Your task to perform on an android device: Open display settings Image 0: 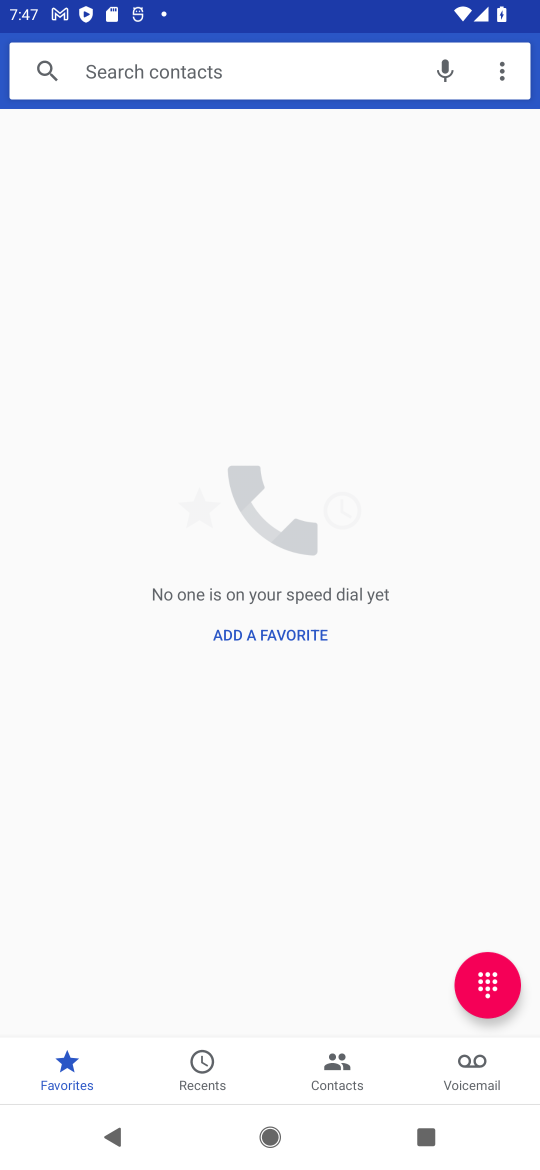
Step 0: press home button
Your task to perform on an android device: Open display settings Image 1: 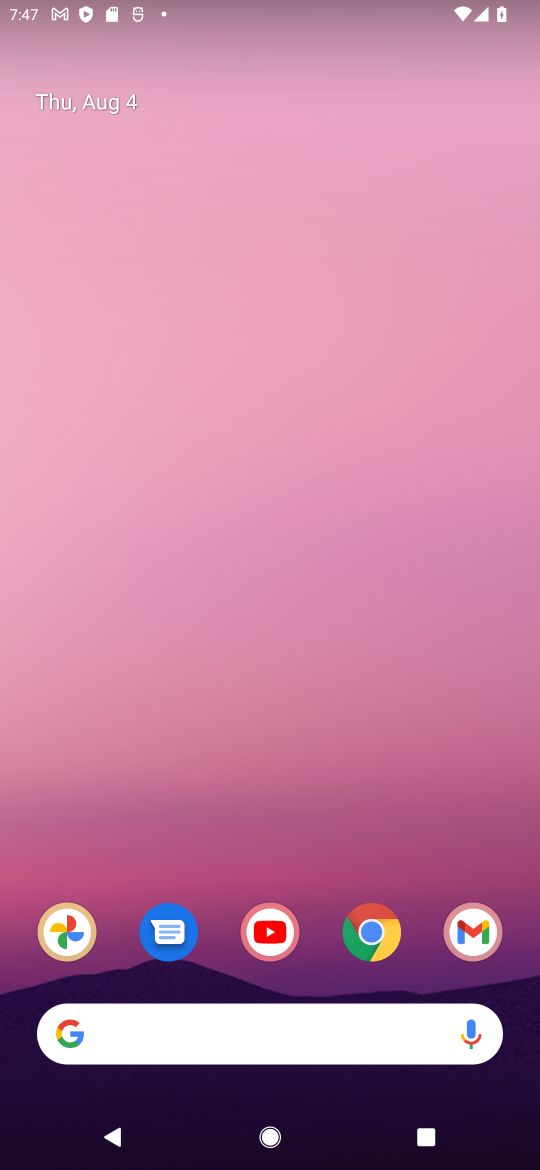
Step 1: drag from (227, 878) to (140, 192)
Your task to perform on an android device: Open display settings Image 2: 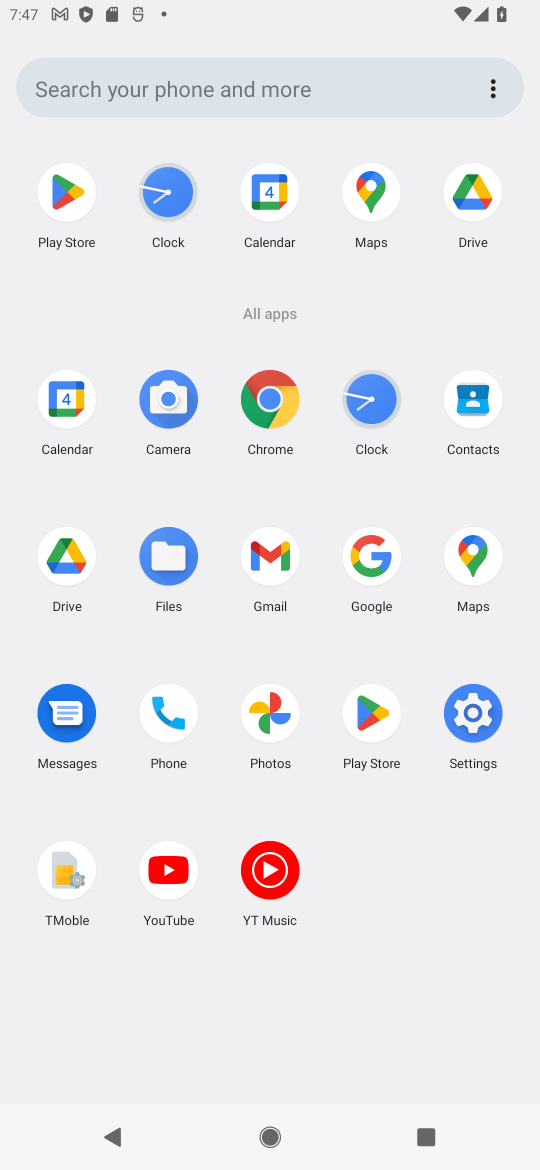
Step 2: click (471, 729)
Your task to perform on an android device: Open display settings Image 3: 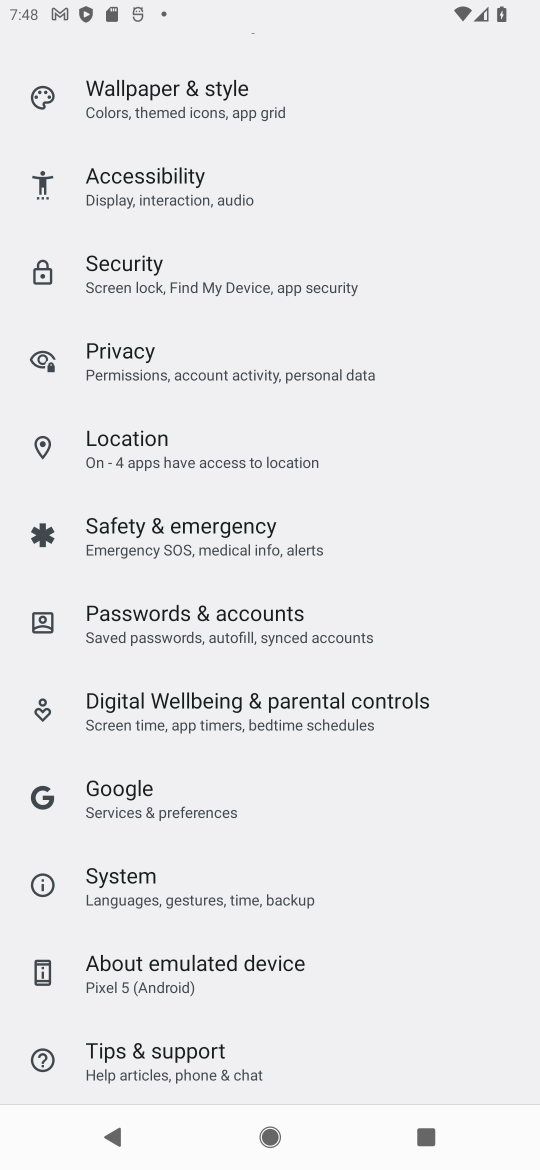
Step 3: drag from (183, 276) to (252, 1137)
Your task to perform on an android device: Open display settings Image 4: 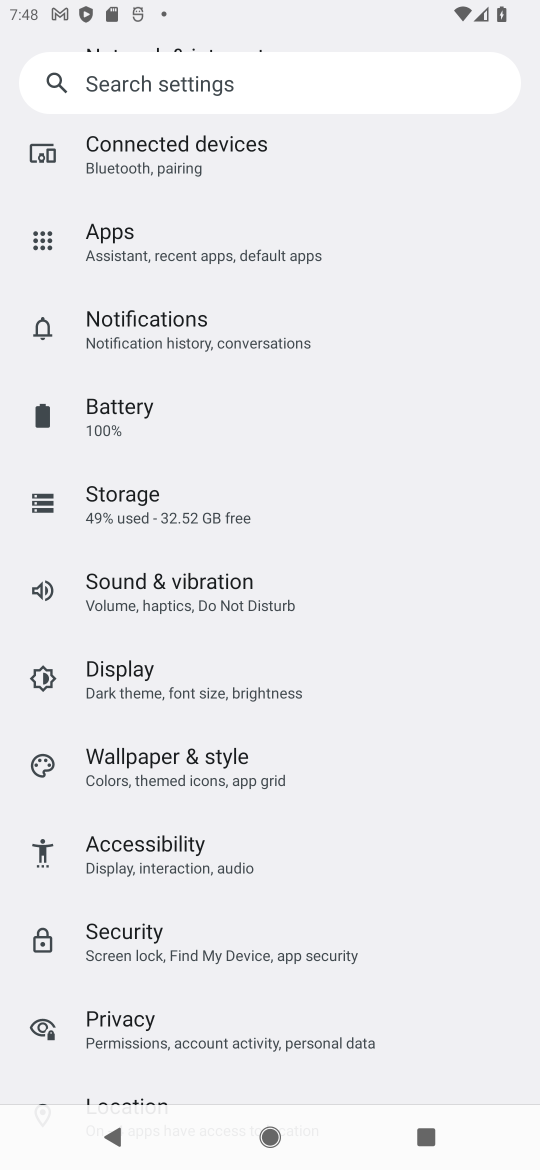
Step 4: drag from (218, 203) to (218, 282)
Your task to perform on an android device: Open display settings Image 5: 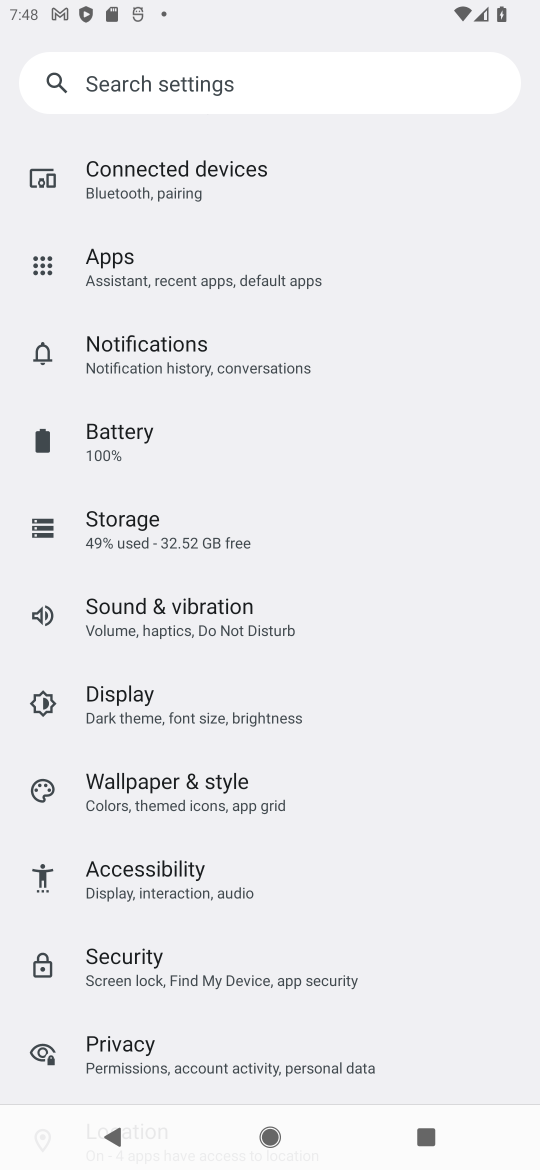
Step 5: click (209, 686)
Your task to perform on an android device: Open display settings Image 6: 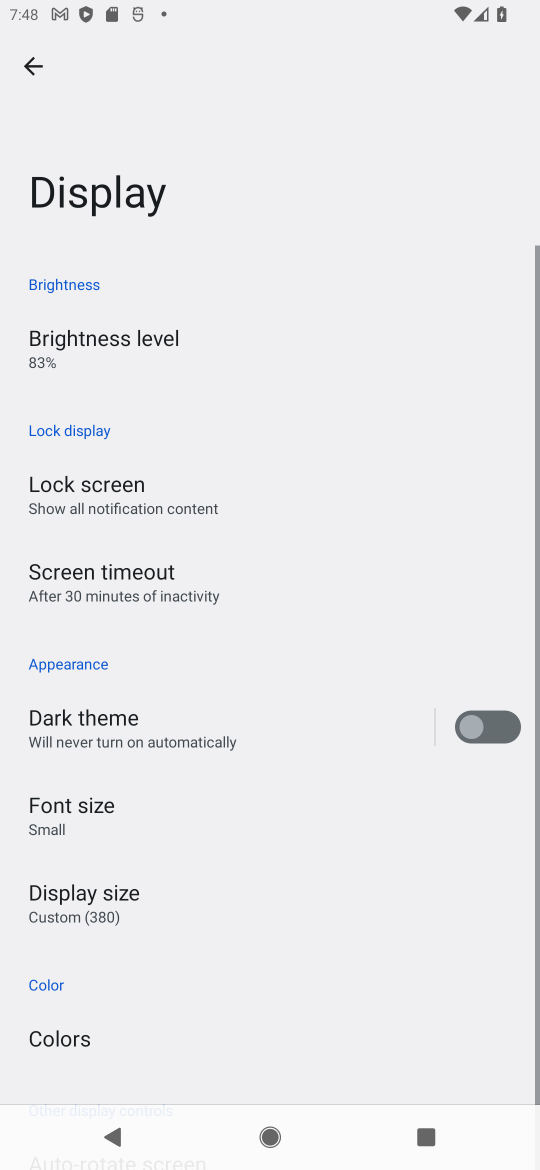
Step 6: task complete